Your task to perform on an android device: delete location history Image 0: 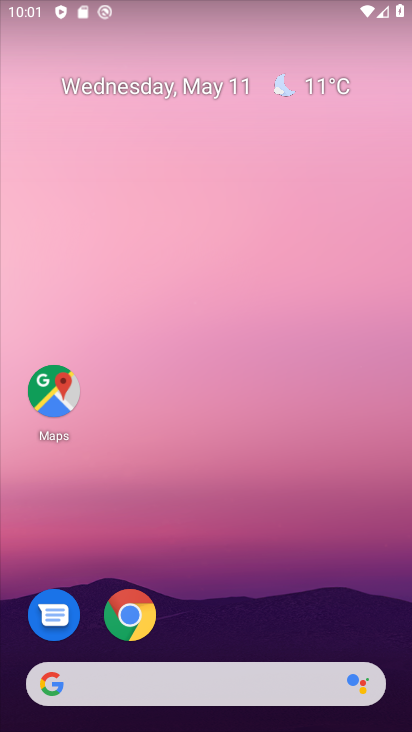
Step 0: click (55, 392)
Your task to perform on an android device: delete location history Image 1: 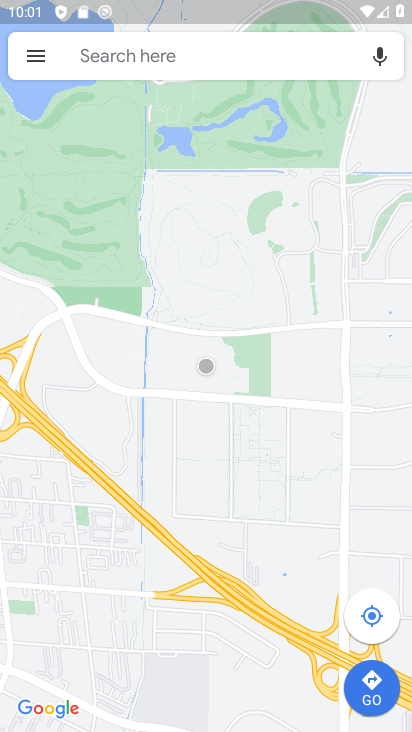
Step 1: click (36, 48)
Your task to perform on an android device: delete location history Image 2: 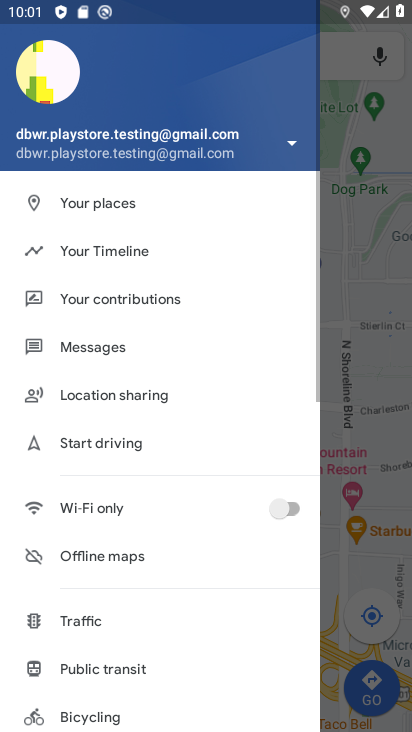
Step 2: drag from (98, 649) to (221, 257)
Your task to perform on an android device: delete location history Image 3: 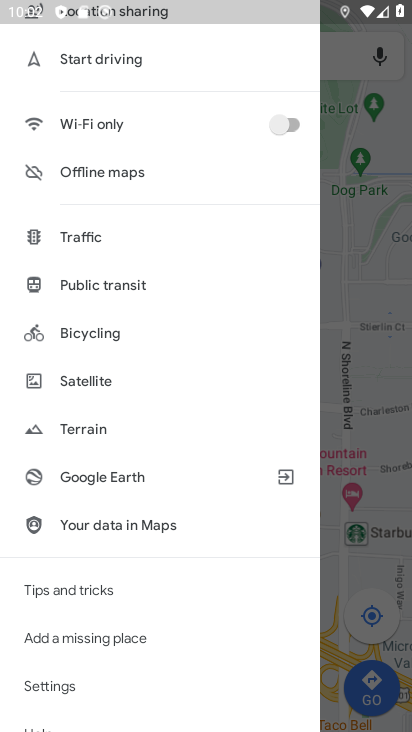
Step 3: click (62, 683)
Your task to perform on an android device: delete location history Image 4: 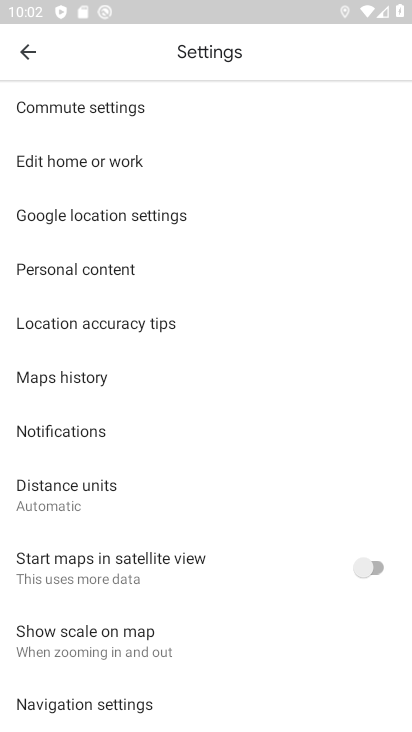
Step 4: click (91, 374)
Your task to perform on an android device: delete location history Image 5: 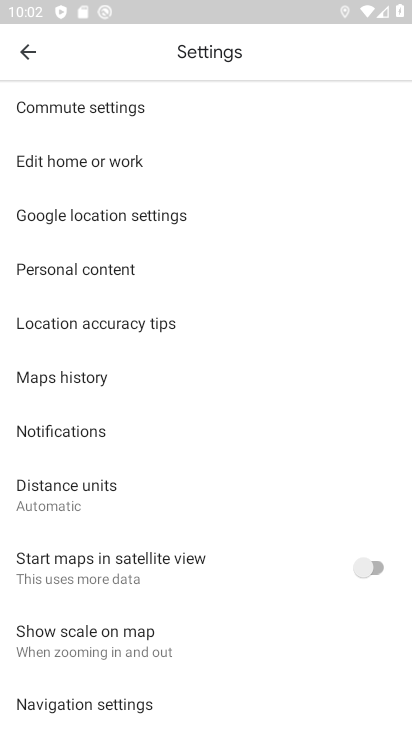
Step 5: click (90, 373)
Your task to perform on an android device: delete location history Image 6: 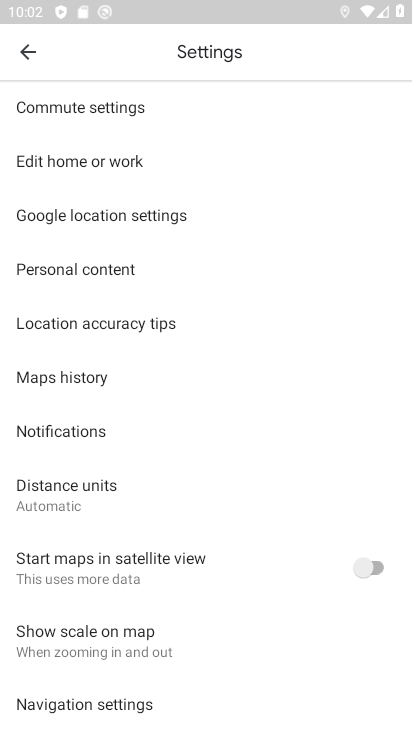
Step 6: click (68, 371)
Your task to perform on an android device: delete location history Image 7: 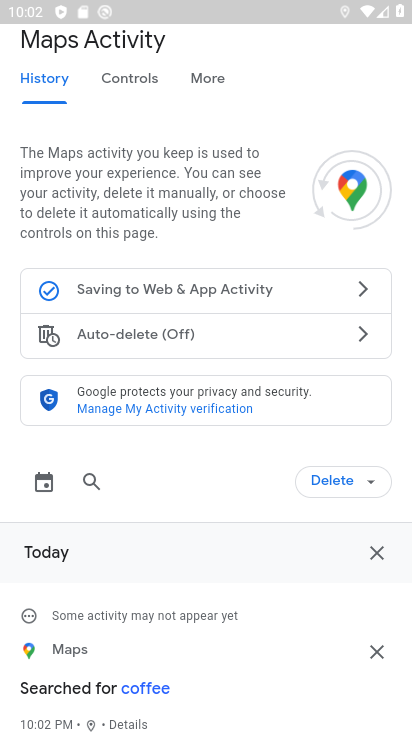
Step 7: click (366, 481)
Your task to perform on an android device: delete location history Image 8: 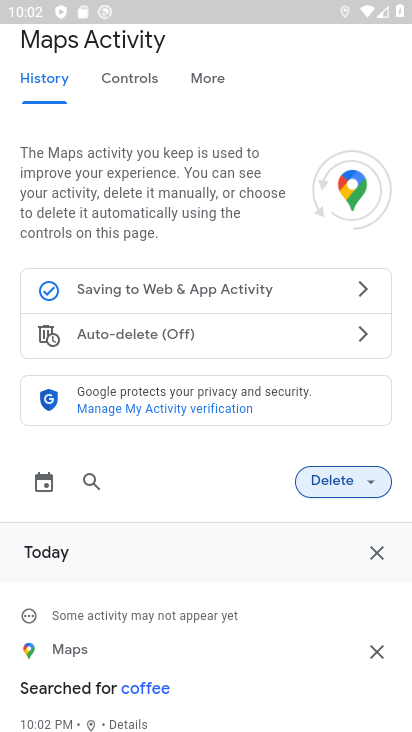
Step 8: click (369, 476)
Your task to perform on an android device: delete location history Image 9: 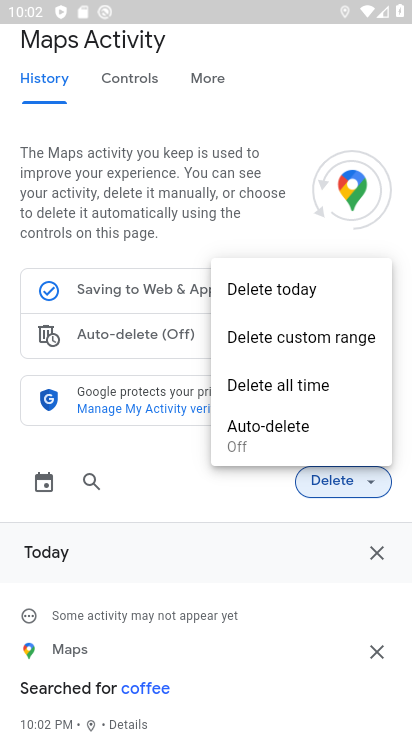
Step 9: click (294, 381)
Your task to perform on an android device: delete location history Image 10: 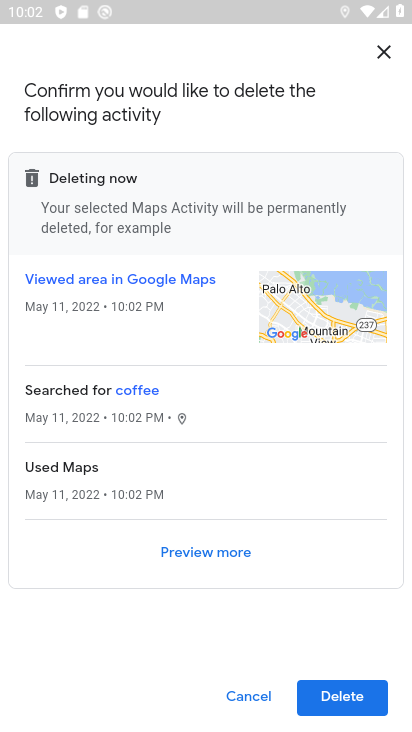
Step 10: click (347, 698)
Your task to perform on an android device: delete location history Image 11: 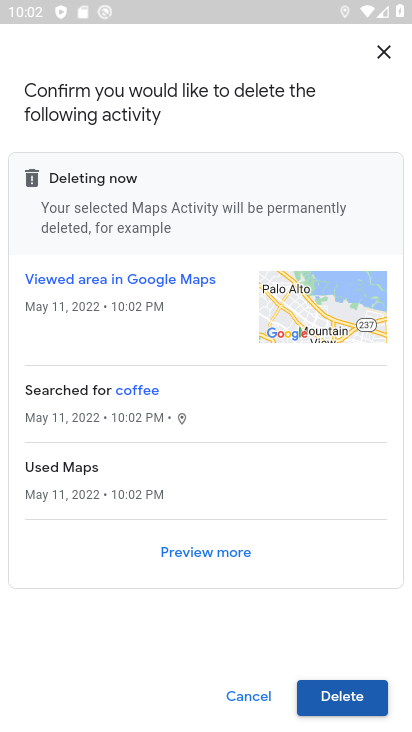
Step 11: click (345, 681)
Your task to perform on an android device: delete location history Image 12: 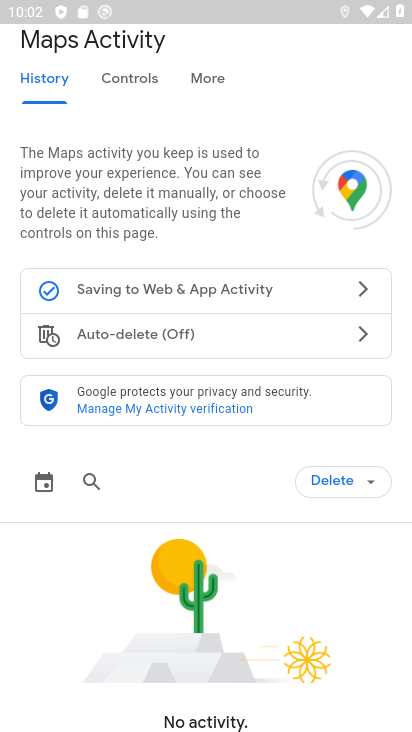
Step 12: task complete